Your task to perform on an android device: empty trash in the gmail app Image 0: 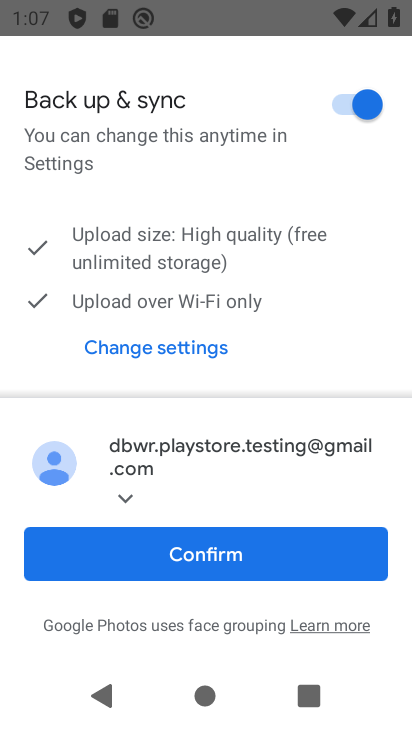
Step 0: press home button
Your task to perform on an android device: empty trash in the gmail app Image 1: 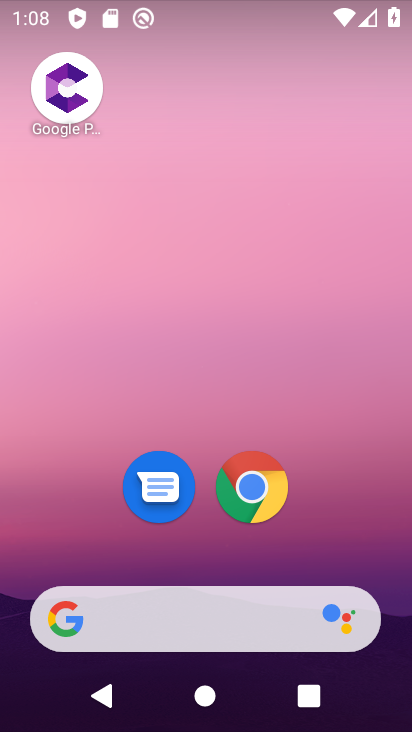
Step 1: drag from (184, 590) to (249, 199)
Your task to perform on an android device: empty trash in the gmail app Image 2: 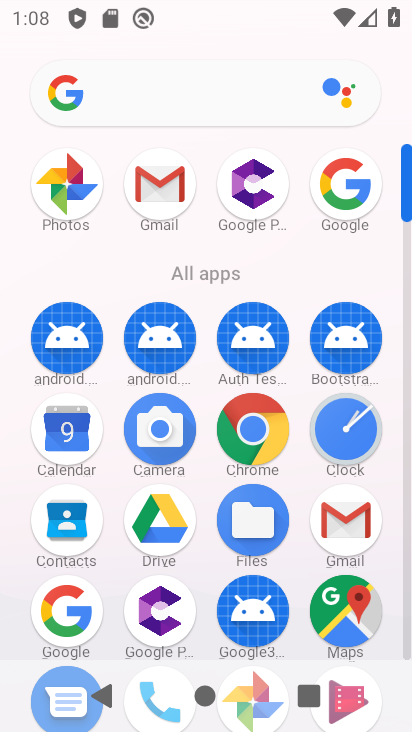
Step 2: click (153, 183)
Your task to perform on an android device: empty trash in the gmail app Image 3: 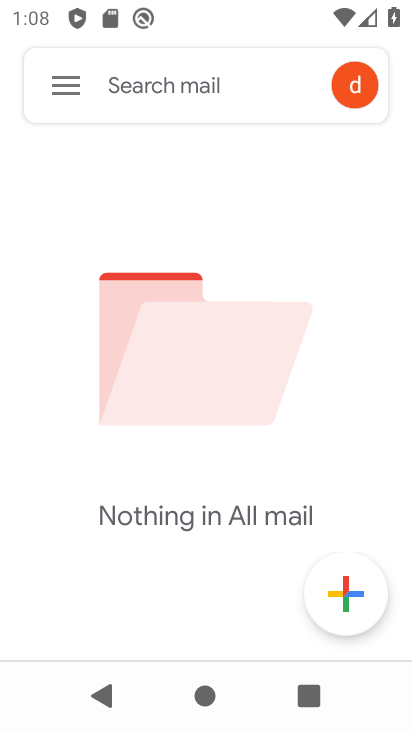
Step 3: click (69, 90)
Your task to perform on an android device: empty trash in the gmail app Image 4: 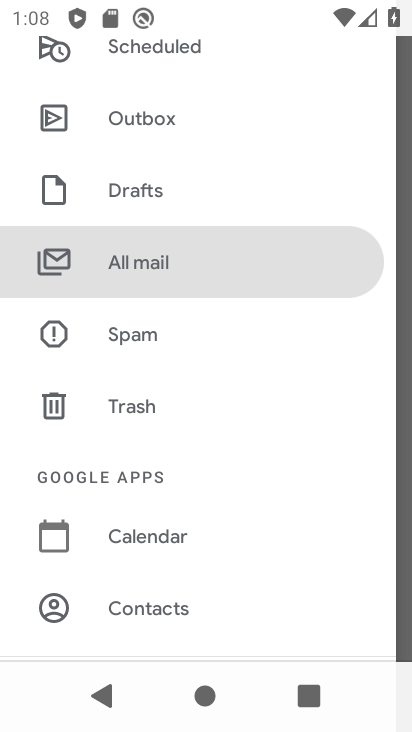
Step 4: click (146, 410)
Your task to perform on an android device: empty trash in the gmail app Image 5: 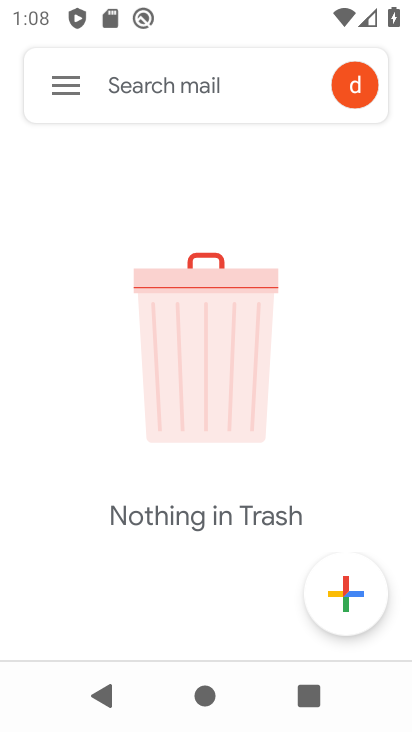
Step 5: task complete